Your task to perform on an android device: show emergency info Image 0: 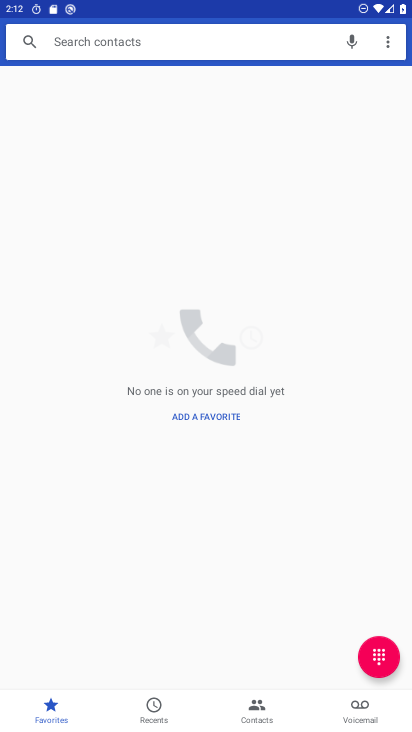
Step 0: press home button
Your task to perform on an android device: show emergency info Image 1: 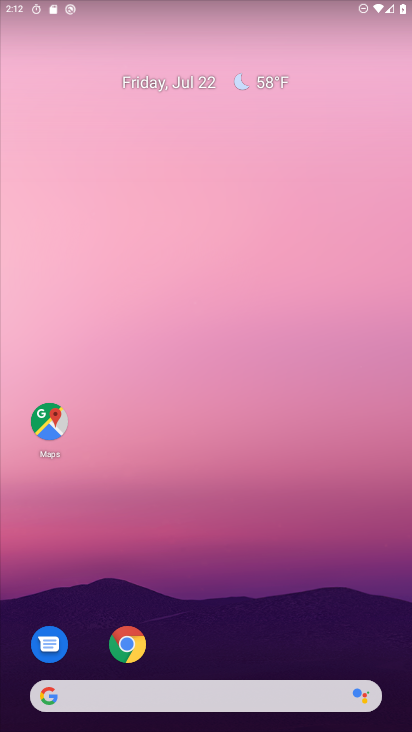
Step 1: drag from (189, 645) to (189, 195)
Your task to perform on an android device: show emergency info Image 2: 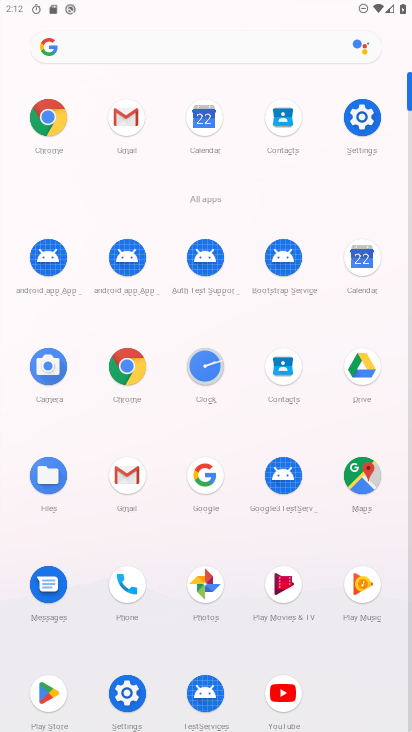
Step 2: click (364, 120)
Your task to perform on an android device: show emergency info Image 3: 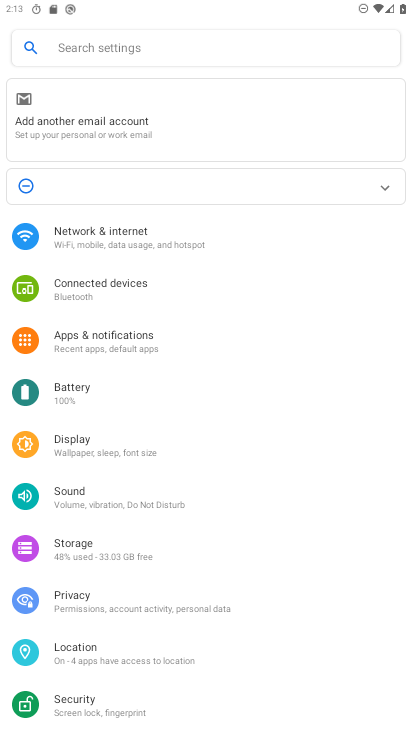
Step 3: drag from (211, 657) to (238, 140)
Your task to perform on an android device: show emergency info Image 4: 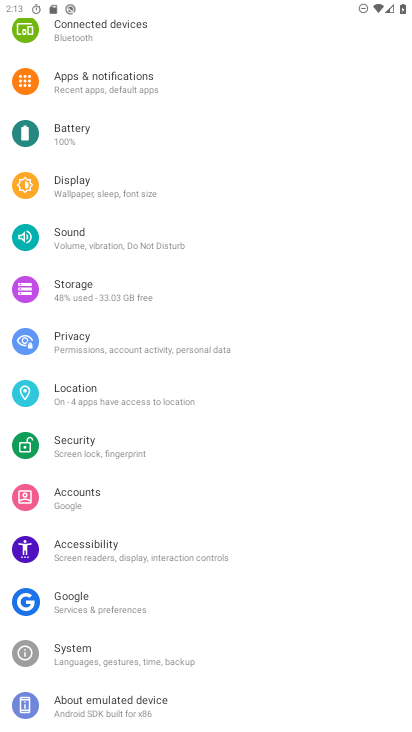
Step 4: click (122, 711)
Your task to perform on an android device: show emergency info Image 5: 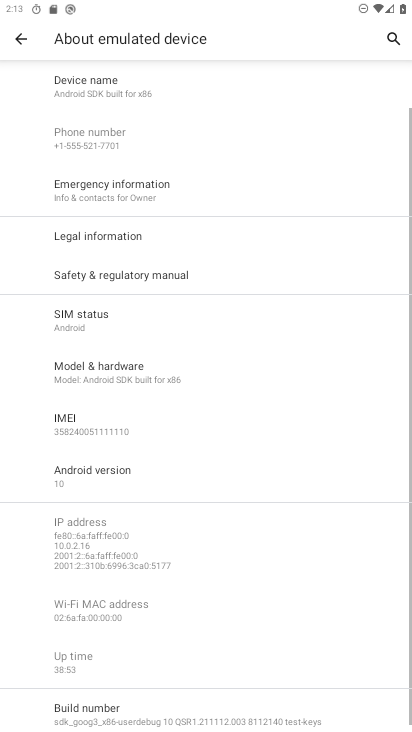
Step 5: click (148, 197)
Your task to perform on an android device: show emergency info Image 6: 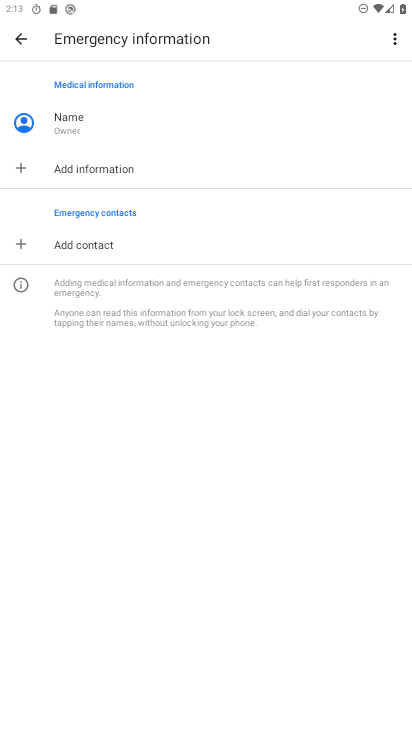
Step 6: task complete